Your task to perform on an android device: Open the calendar app, open the side menu, and click the "Day" option Image 0: 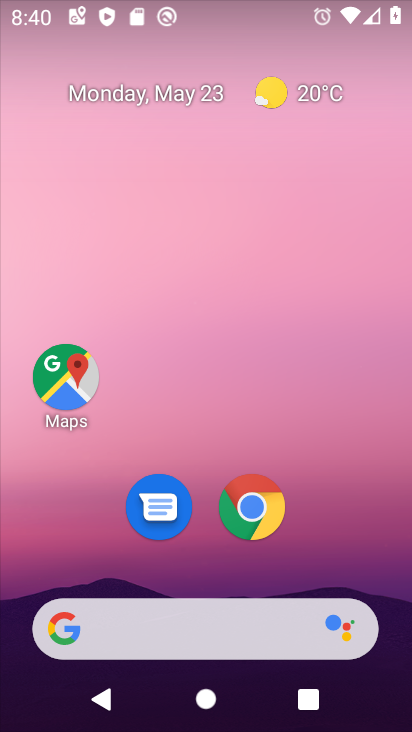
Step 0: drag from (366, 584) to (376, 0)
Your task to perform on an android device: Open the calendar app, open the side menu, and click the "Day" option Image 1: 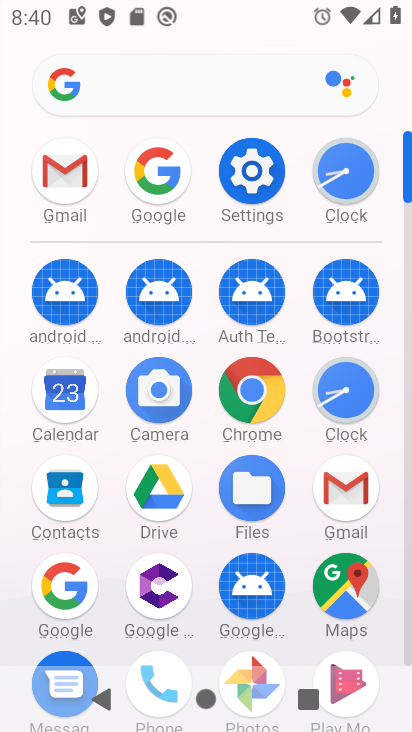
Step 1: click (70, 389)
Your task to perform on an android device: Open the calendar app, open the side menu, and click the "Day" option Image 2: 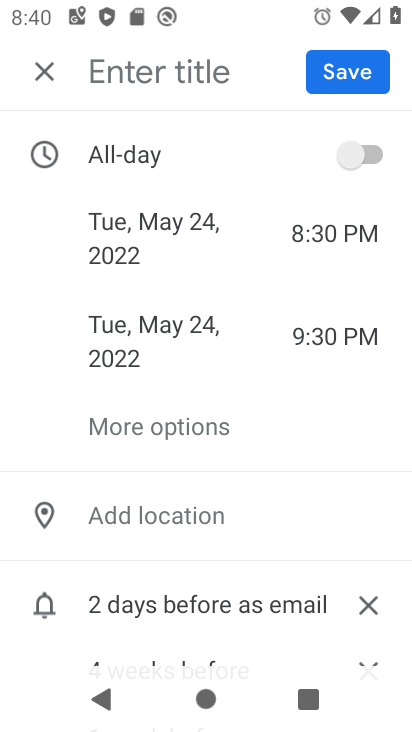
Step 2: click (38, 79)
Your task to perform on an android device: Open the calendar app, open the side menu, and click the "Day" option Image 3: 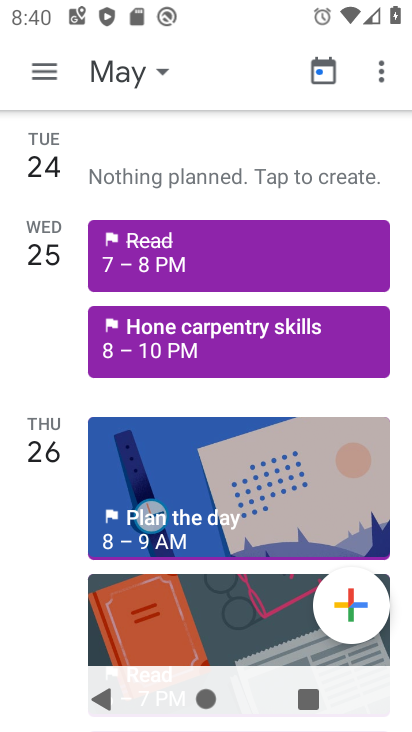
Step 3: click (38, 79)
Your task to perform on an android device: Open the calendar app, open the side menu, and click the "Day" option Image 4: 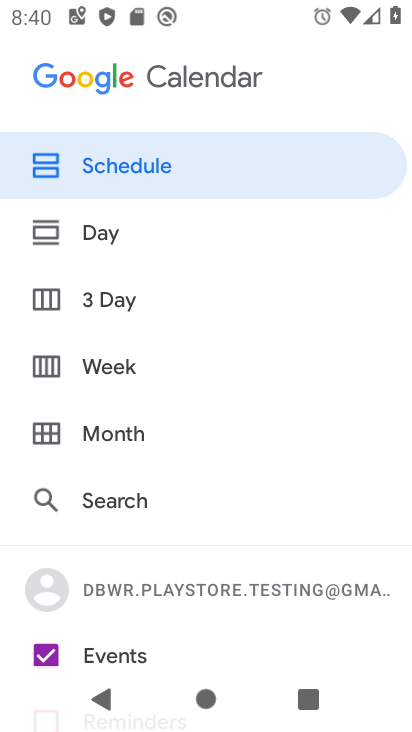
Step 4: click (83, 236)
Your task to perform on an android device: Open the calendar app, open the side menu, and click the "Day" option Image 5: 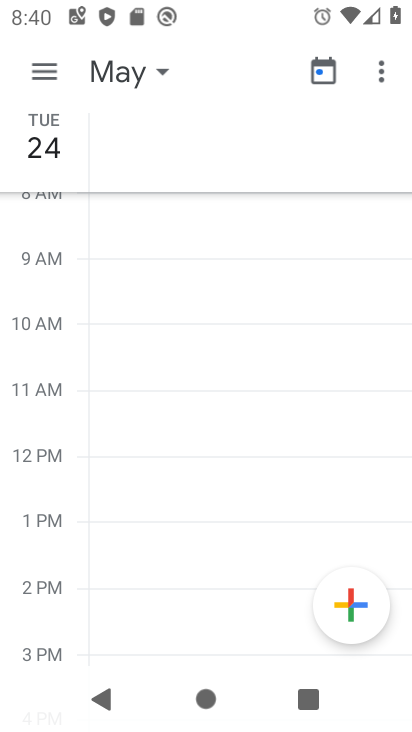
Step 5: task complete